Your task to perform on an android device: toggle wifi Image 0: 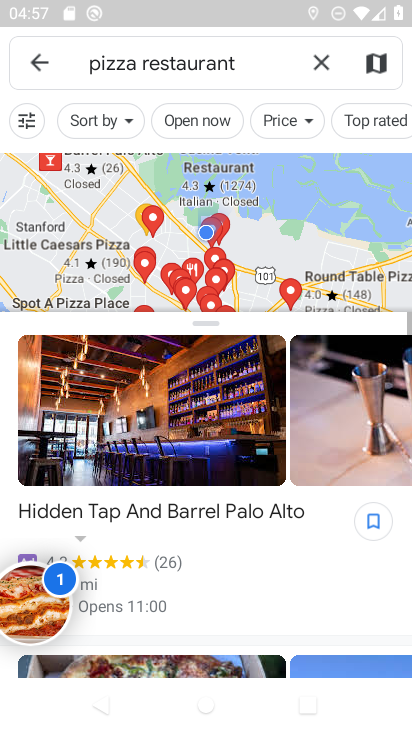
Step 0: press home button
Your task to perform on an android device: toggle wifi Image 1: 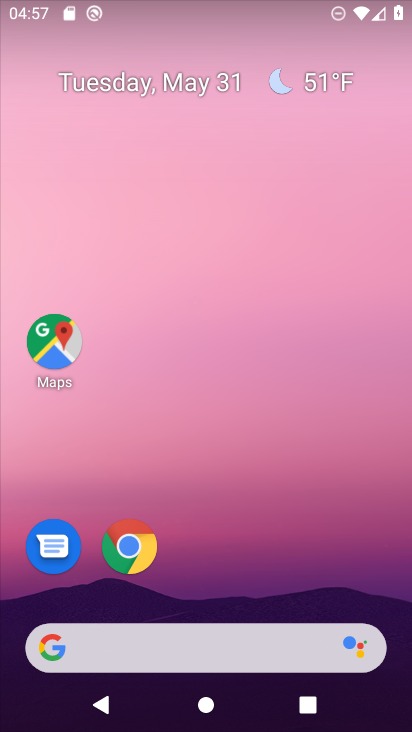
Step 1: drag from (217, 601) to (201, 140)
Your task to perform on an android device: toggle wifi Image 2: 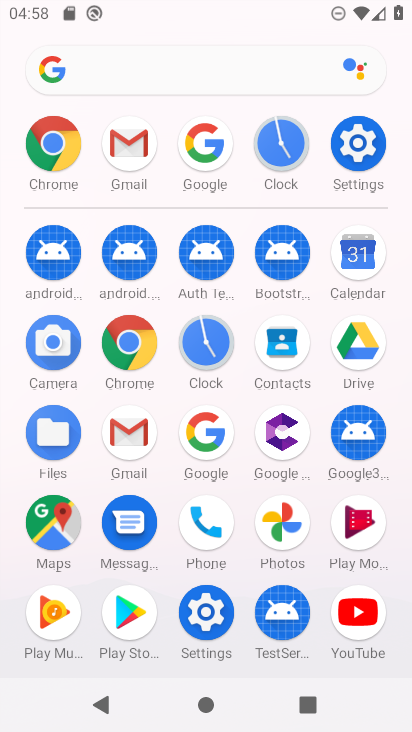
Step 2: click (364, 150)
Your task to perform on an android device: toggle wifi Image 3: 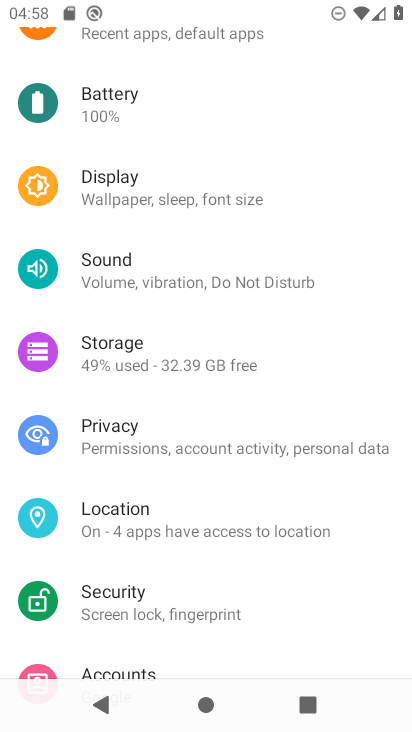
Step 3: drag from (220, 242) to (187, 543)
Your task to perform on an android device: toggle wifi Image 4: 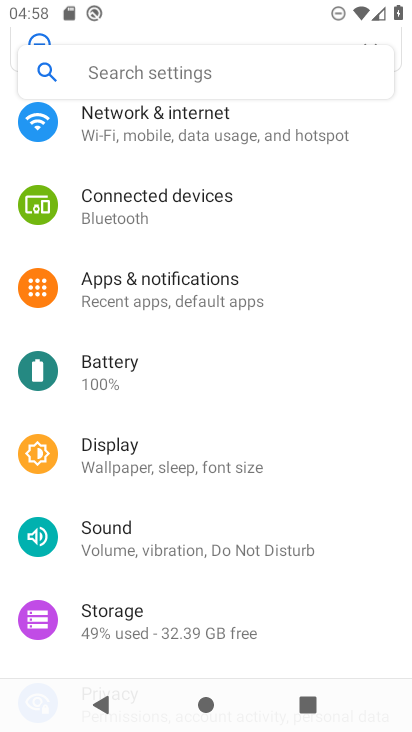
Step 4: drag from (205, 266) to (178, 701)
Your task to perform on an android device: toggle wifi Image 5: 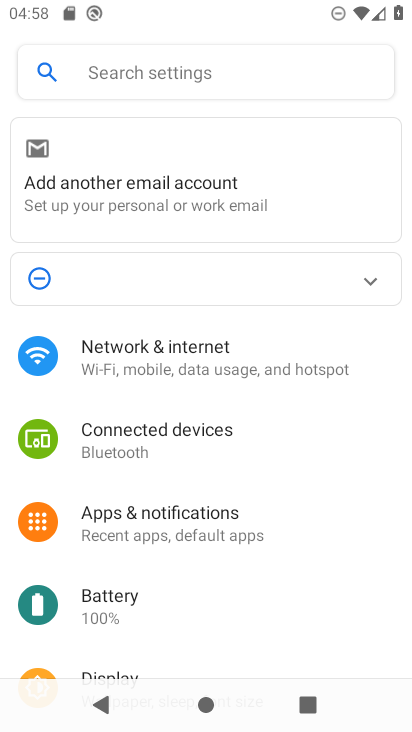
Step 5: click (252, 384)
Your task to perform on an android device: toggle wifi Image 6: 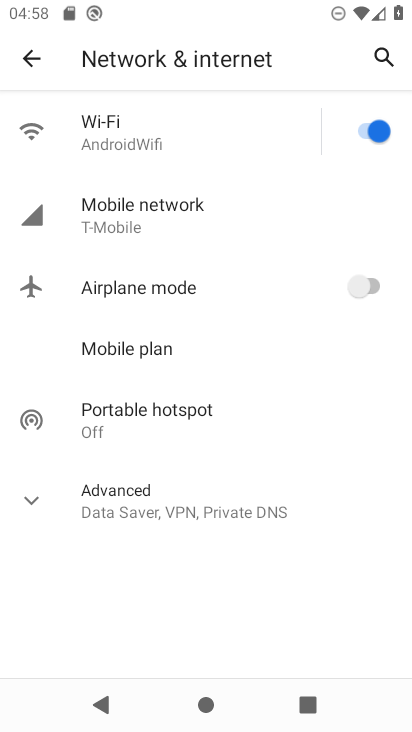
Step 6: click (365, 136)
Your task to perform on an android device: toggle wifi Image 7: 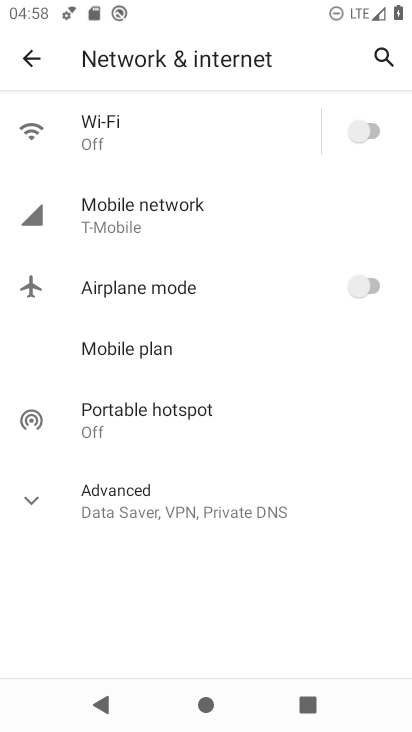
Step 7: task complete